Your task to perform on an android device: turn on priority inbox in the gmail app Image 0: 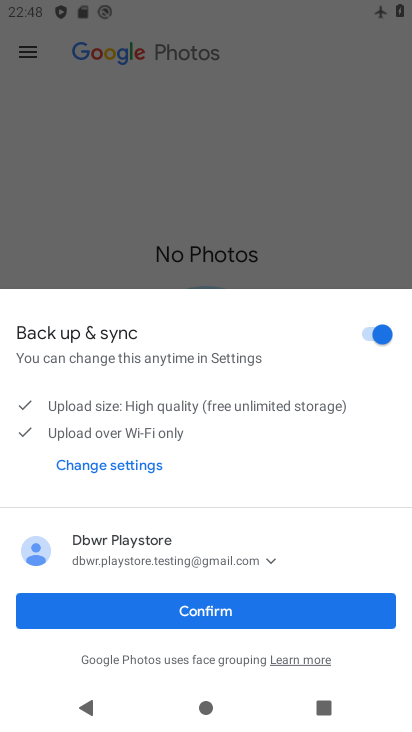
Step 0: press home button
Your task to perform on an android device: turn on priority inbox in the gmail app Image 1: 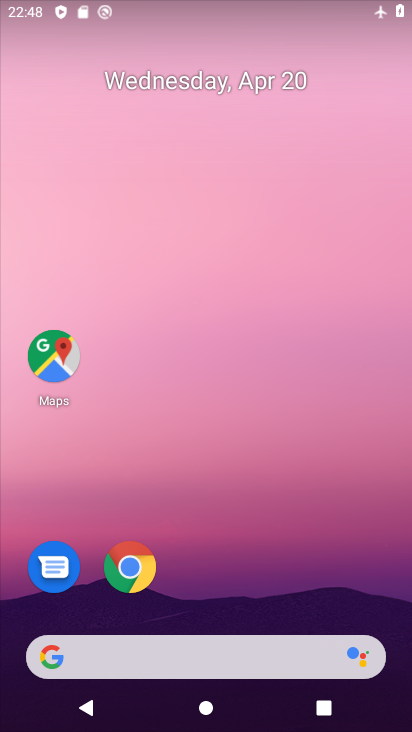
Step 1: drag from (245, 595) to (305, 251)
Your task to perform on an android device: turn on priority inbox in the gmail app Image 2: 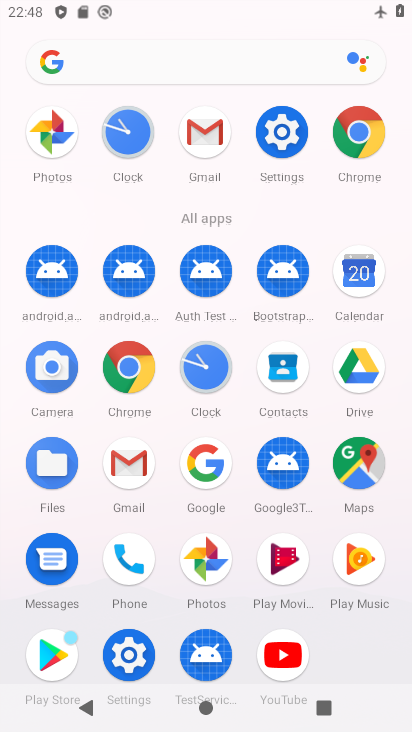
Step 2: click (206, 129)
Your task to perform on an android device: turn on priority inbox in the gmail app Image 3: 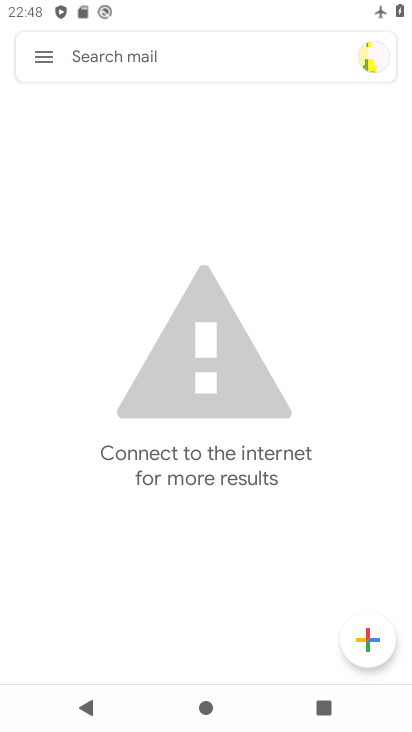
Step 3: click (36, 49)
Your task to perform on an android device: turn on priority inbox in the gmail app Image 4: 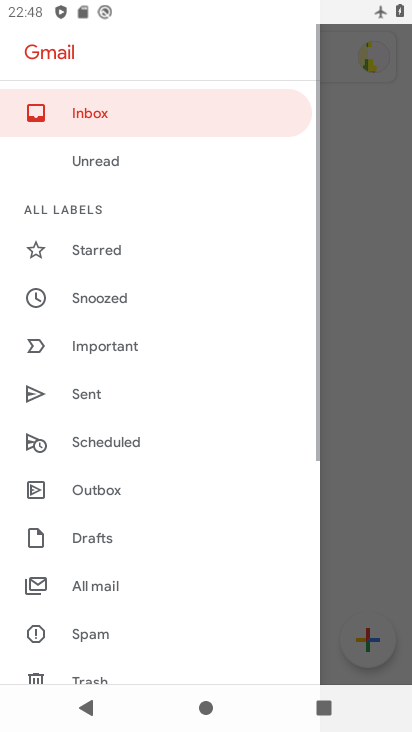
Step 4: drag from (173, 599) to (244, 115)
Your task to perform on an android device: turn on priority inbox in the gmail app Image 5: 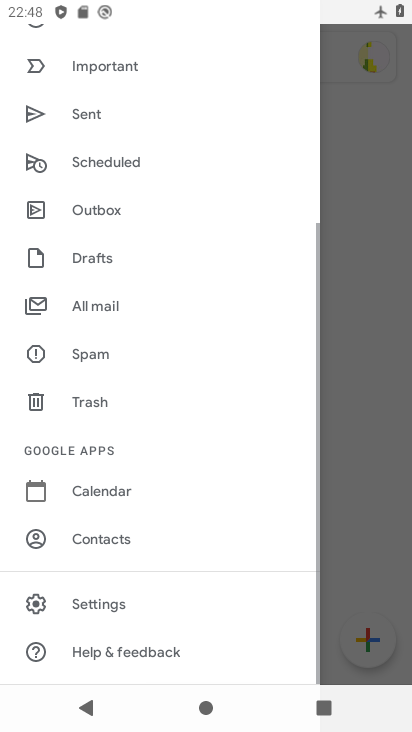
Step 5: click (117, 599)
Your task to perform on an android device: turn on priority inbox in the gmail app Image 6: 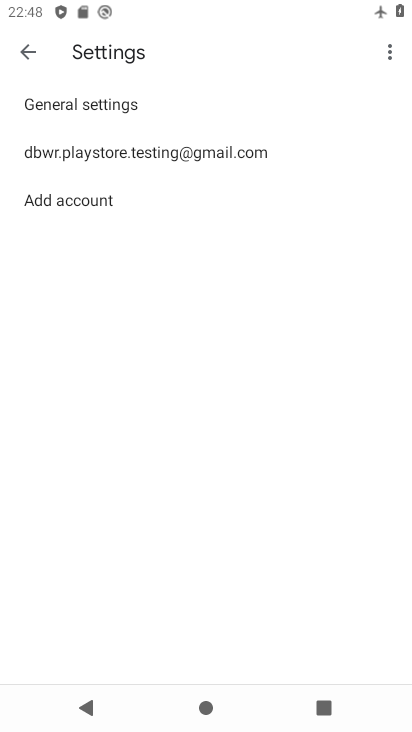
Step 6: click (209, 143)
Your task to perform on an android device: turn on priority inbox in the gmail app Image 7: 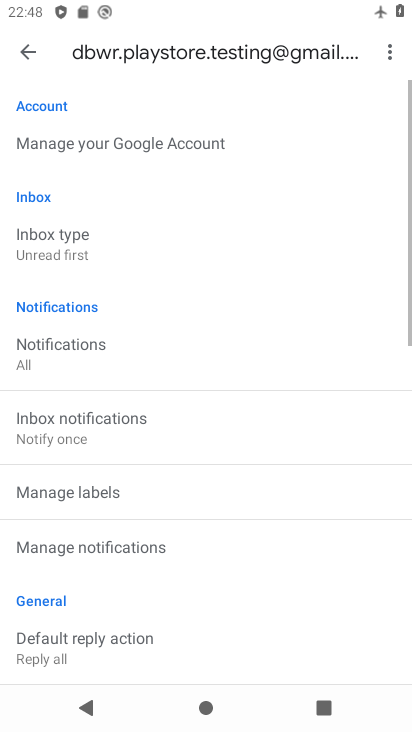
Step 7: drag from (217, 628) to (325, 69)
Your task to perform on an android device: turn on priority inbox in the gmail app Image 8: 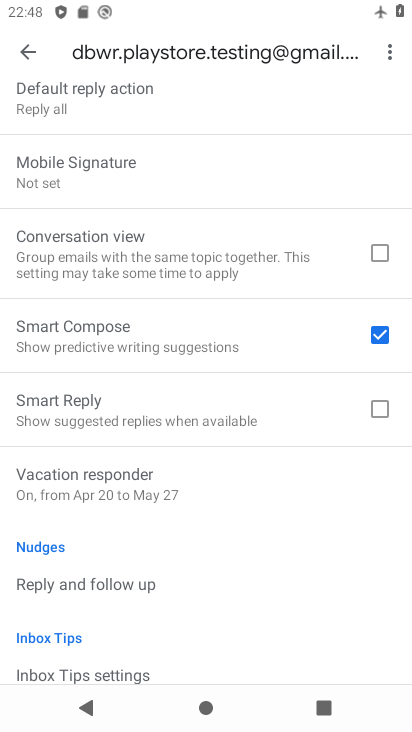
Step 8: drag from (255, 205) to (190, 657)
Your task to perform on an android device: turn on priority inbox in the gmail app Image 9: 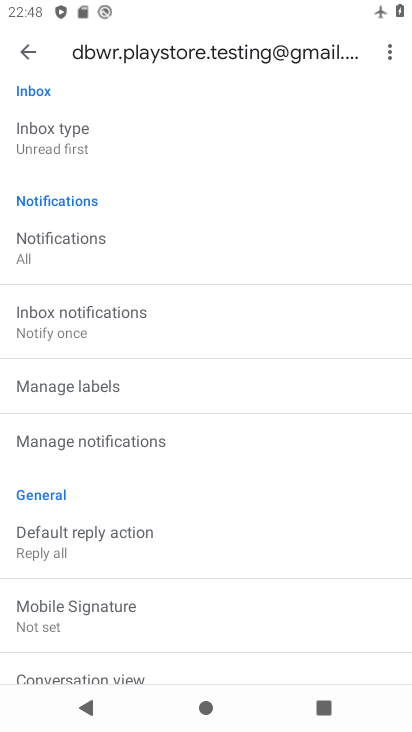
Step 9: drag from (160, 178) to (169, 526)
Your task to perform on an android device: turn on priority inbox in the gmail app Image 10: 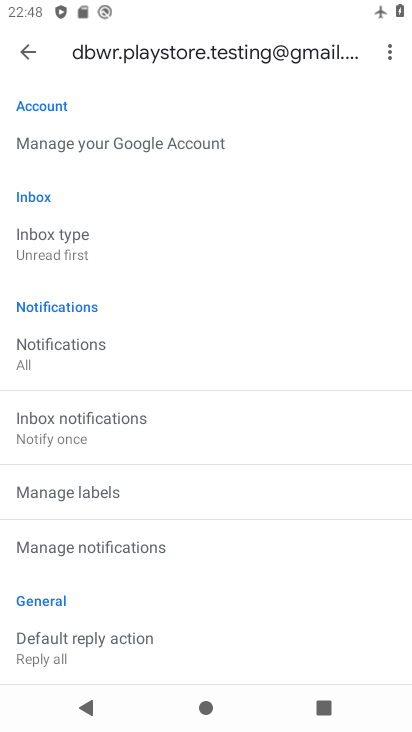
Step 10: click (80, 235)
Your task to perform on an android device: turn on priority inbox in the gmail app Image 11: 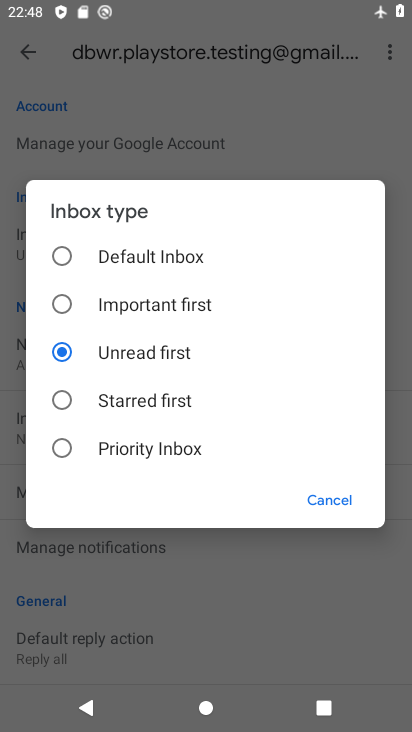
Step 11: click (131, 458)
Your task to perform on an android device: turn on priority inbox in the gmail app Image 12: 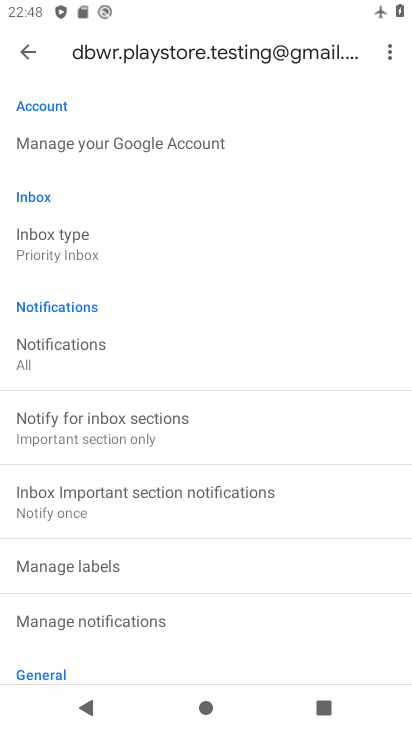
Step 12: task complete